Your task to perform on an android device: open chrome privacy settings Image 0: 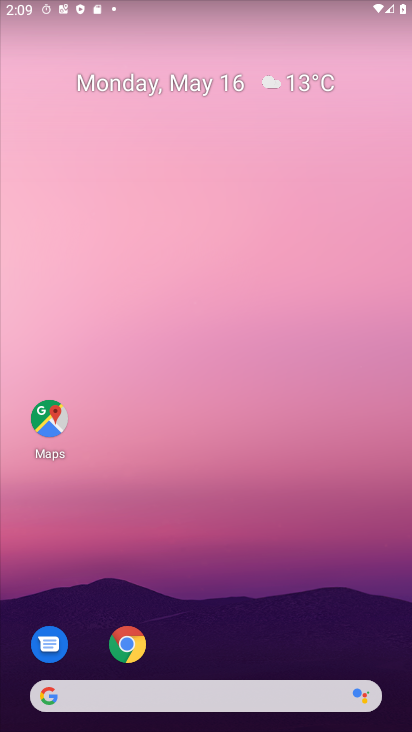
Step 0: drag from (234, 676) to (270, 144)
Your task to perform on an android device: open chrome privacy settings Image 1: 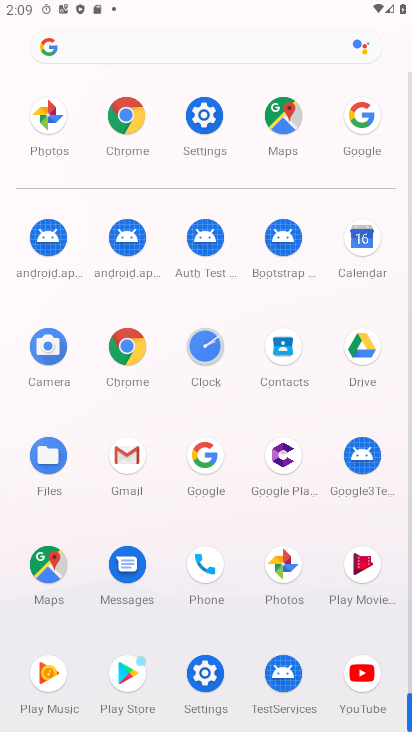
Step 1: click (203, 141)
Your task to perform on an android device: open chrome privacy settings Image 2: 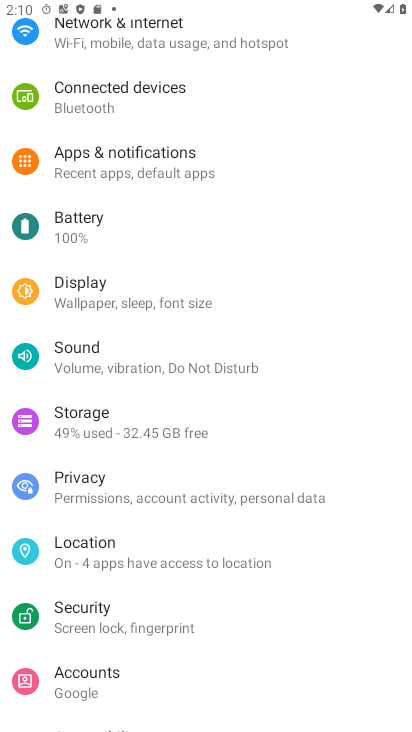
Step 2: click (163, 488)
Your task to perform on an android device: open chrome privacy settings Image 3: 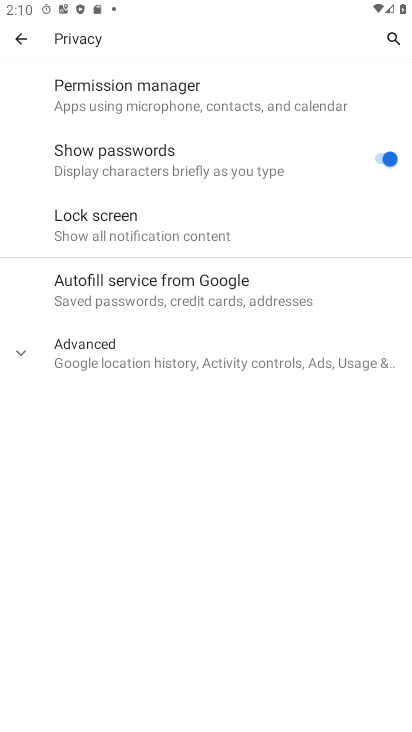
Step 3: task complete